Your task to perform on an android device: Open accessibility settings Image 0: 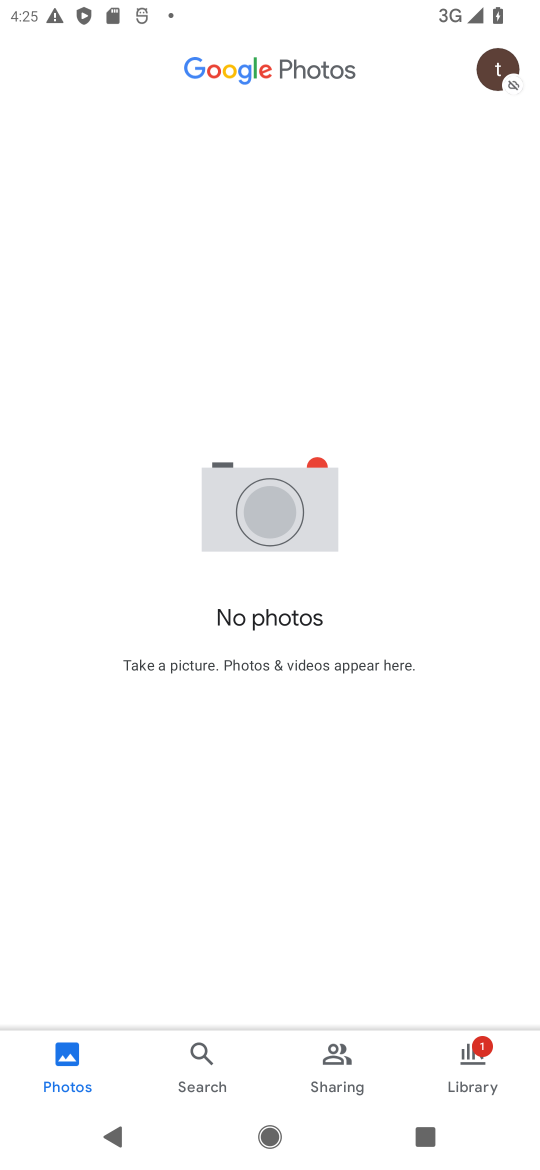
Step 0: press home button
Your task to perform on an android device: Open accessibility settings Image 1: 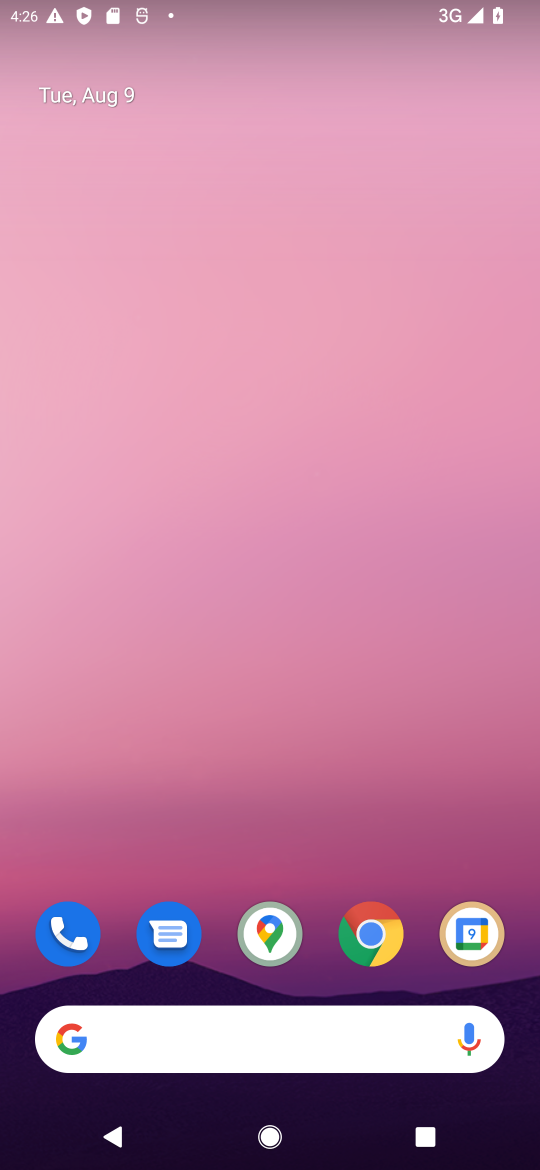
Step 1: drag from (310, 990) to (132, 142)
Your task to perform on an android device: Open accessibility settings Image 2: 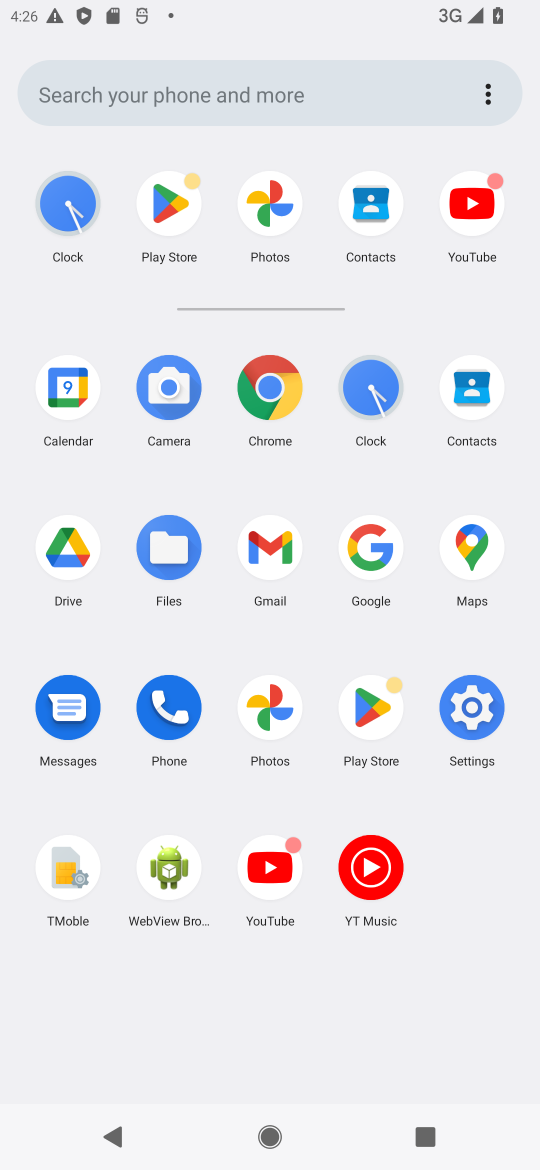
Step 2: click (464, 762)
Your task to perform on an android device: Open accessibility settings Image 3: 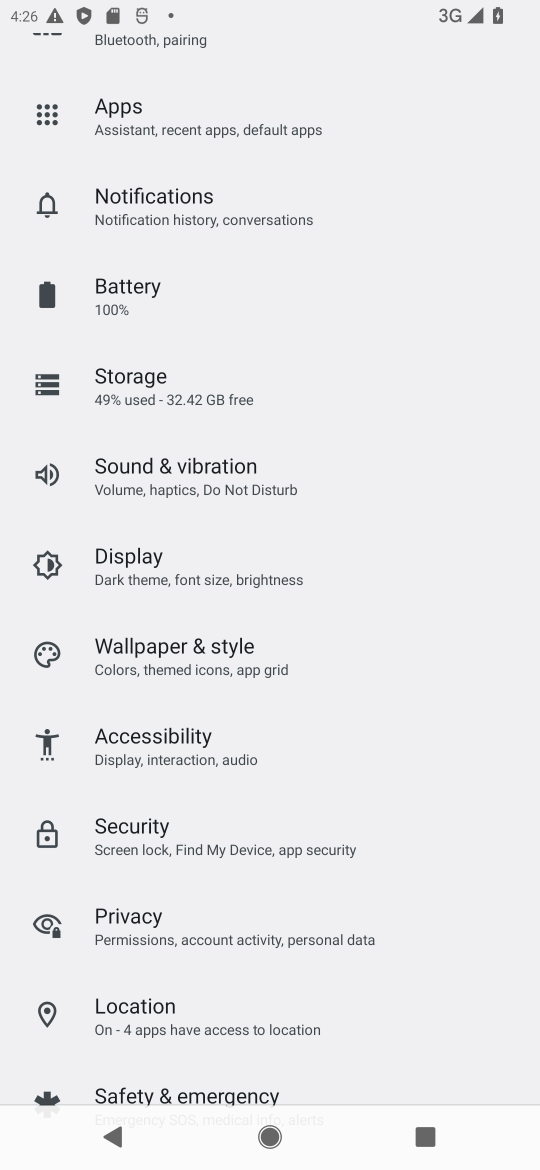
Step 3: click (218, 772)
Your task to perform on an android device: Open accessibility settings Image 4: 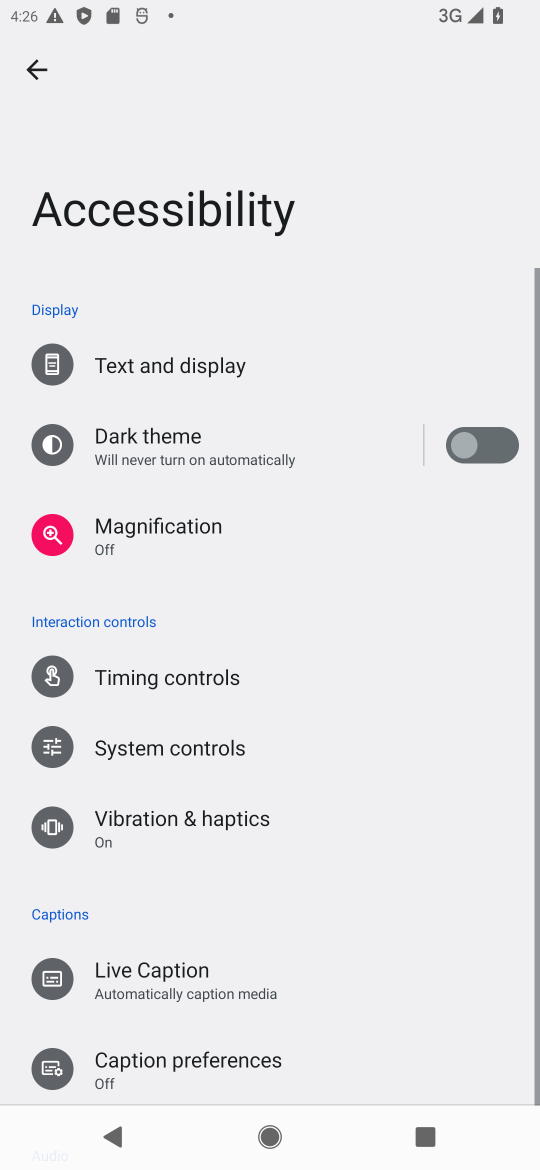
Step 4: task complete